Your task to perform on an android device: Search for razer naga on bestbuy.com, select the first entry, and add it to the cart. Image 0: 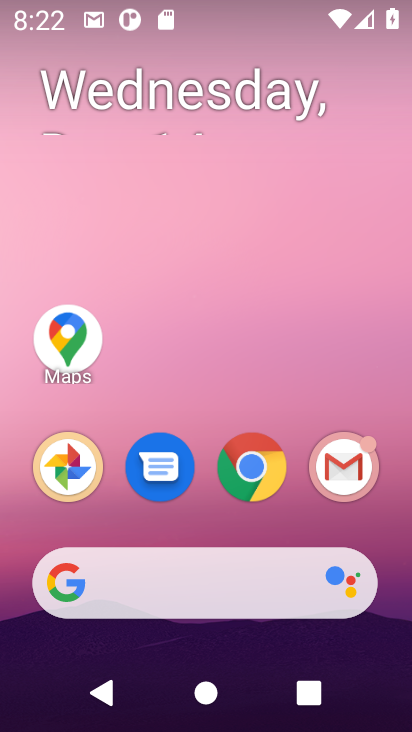
Step 0: click (232, 483)
Your task to perform on an android device: Search for razer naga on bestbuy.com, select the first entry, and add it to the cart. Image 1: 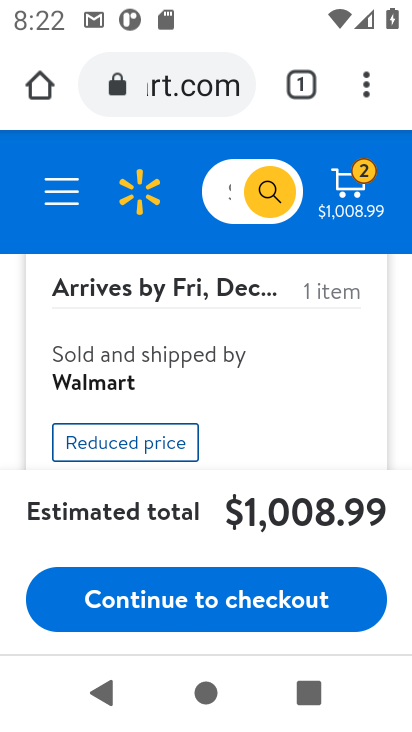
Step 1: click (183, 107)
Your task to perform on an android device: Search for razer naga on bestbuy.com, select the first entry, and add it to the cart. Image 2: 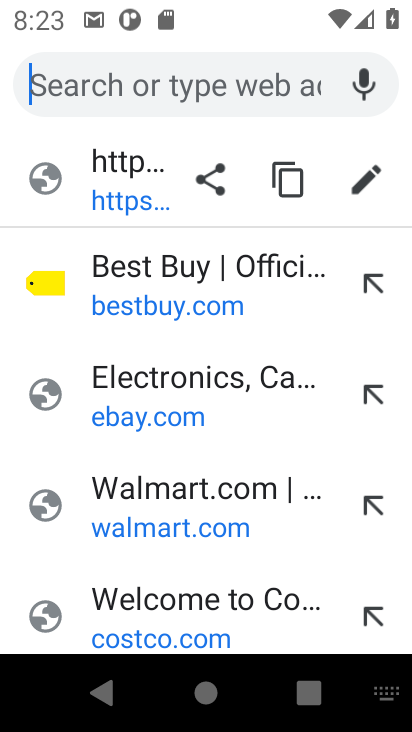
Step 2: click (165, 281)
Your task to perform on an android device: Search for razer naga on bestbuy.com, select the first entry, and add it to the cart. Image 3: 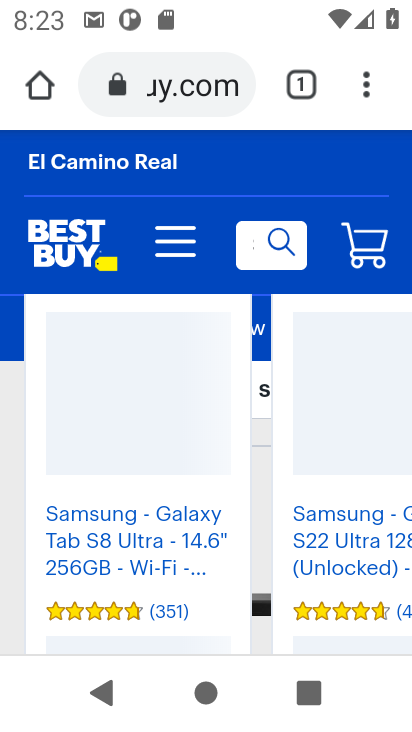
Step 3: click (278, 256)
Your task to perform on an android device: Search for razer naga on bestbuy.com, select the first entry, and add it to the cart. Image 4: 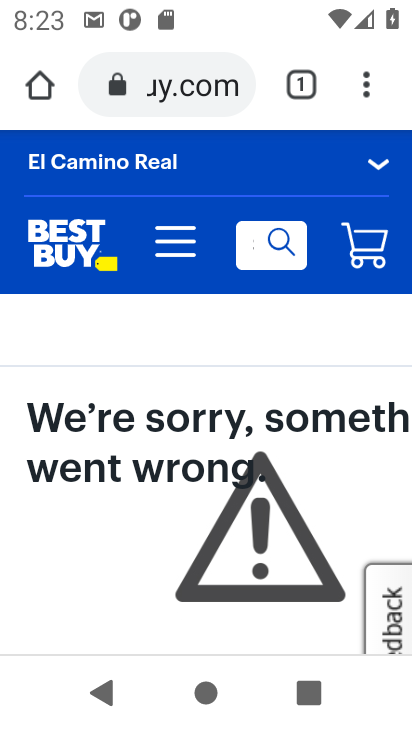
Step 4: type "razer naga"
Your task to perform on an android device: Search for razer naga on bestbuy.com, select the first entry, and add it to the cart. Image 5: 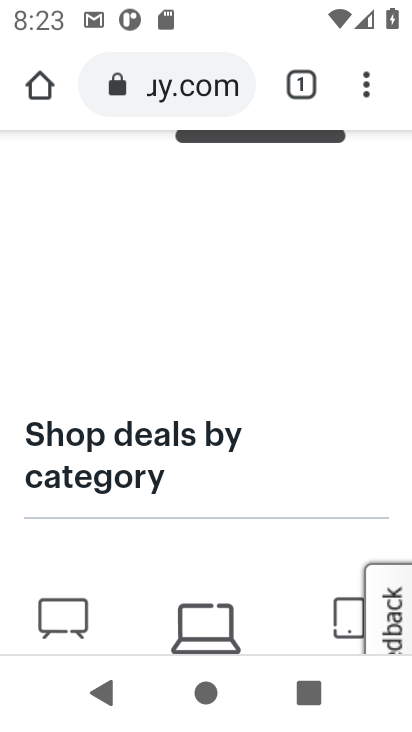
Step 5: task complete